Your task to perform on an android device: stop showing notifications on the lock screen Image 0: 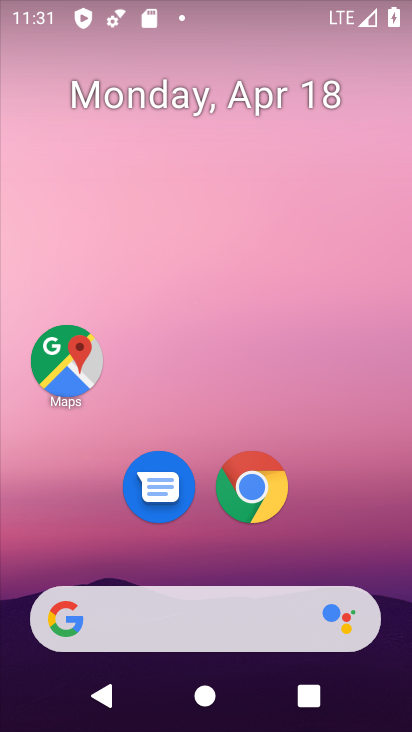
Step 0: drag from (201, 559) to (202, 12)
Your task to perform on an android device: stop showing notifications on the lock screen Image 1: 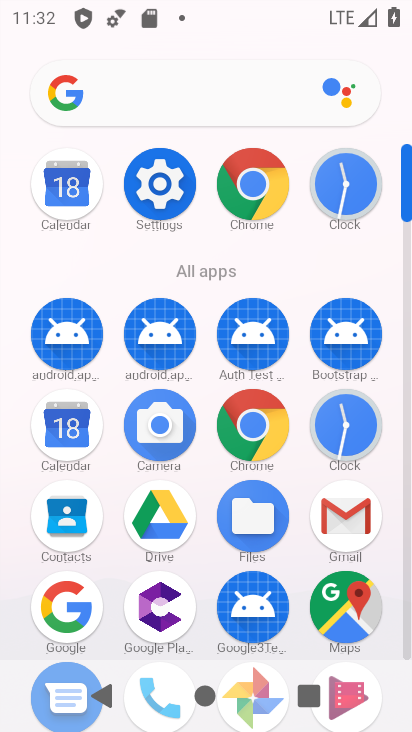
Step 1: click (160, 185)
Your task to perform on an android device: stop showing notifications on the lock screen Image 2: 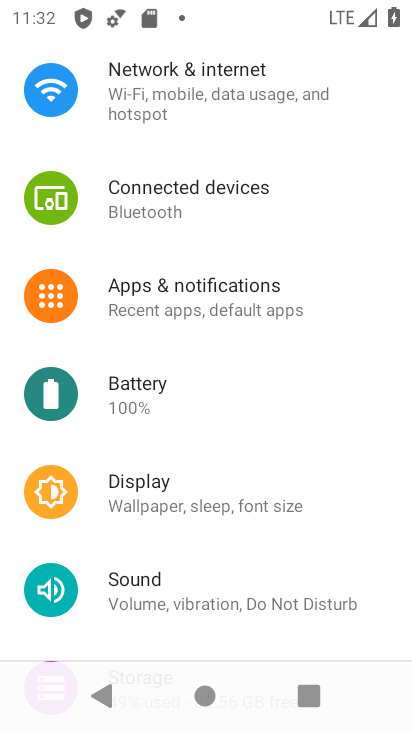
Step 2: click (177, 291)
Your task to perform on an android device: stop showing notifications on the lock screen Image 3: 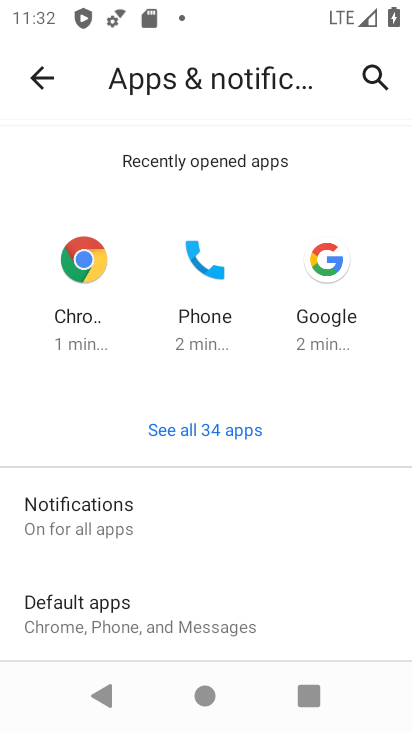
Step 3: drag from (171, 580) to (129, 221)
Your task to perform on an android device: stop showing notifications on the lock screen Image 4: 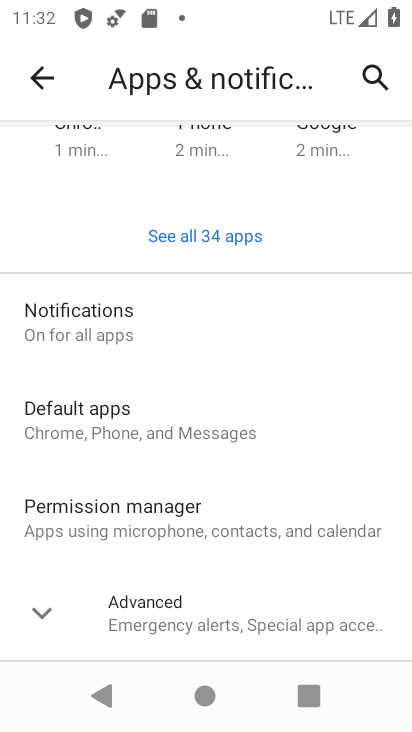
Step 4: click (63, 308)
Your task to perform on an android device: stop showing notifications on the lock screen Image 5: 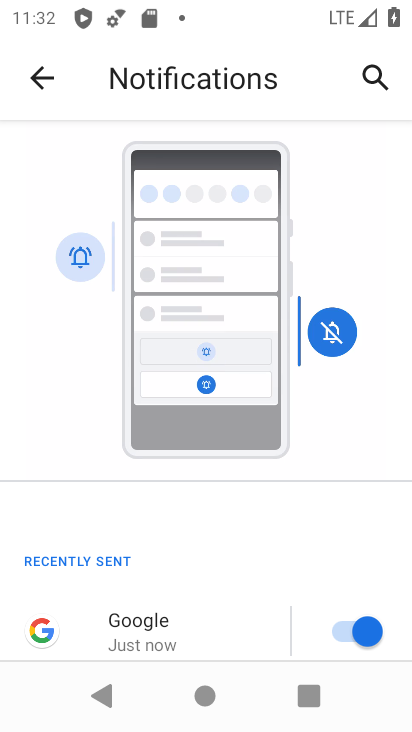
Step 5: drag from (175, 588) to (128, 220)
Your task to perform on an android device: stop showing notifications on the lock screen Image 6: 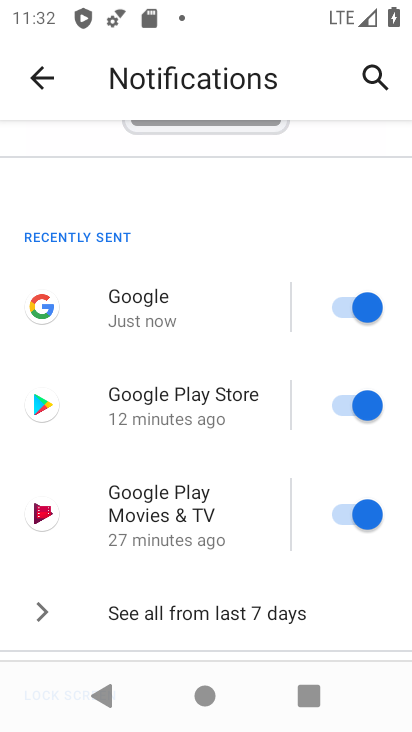
Step 6: drag from (200, 580) to (134, 159)
Your task to perform on an android device: stop showing notifications on the lock screen Image 7: 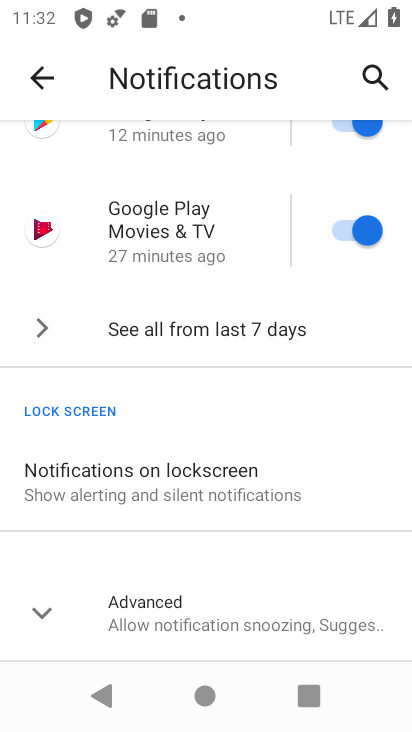
Step 7: click (164, 472)
Your task to perform on an android device: stop showing notifications on the lock screen Image 8: 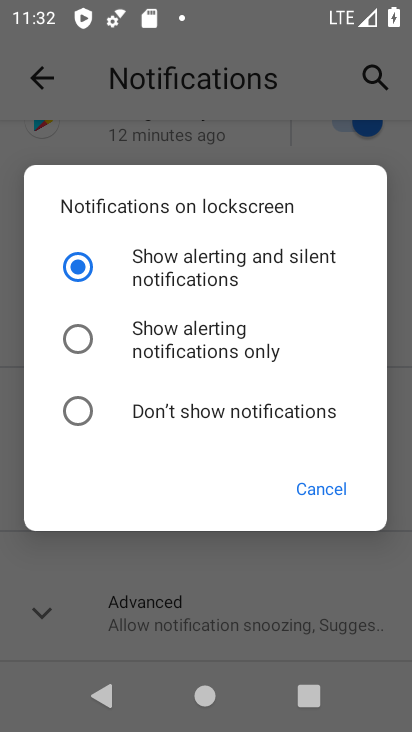
Step 8: click (78, 415)
Your task to perform on an android device: stop showing notifications on the lock screen Image 9: 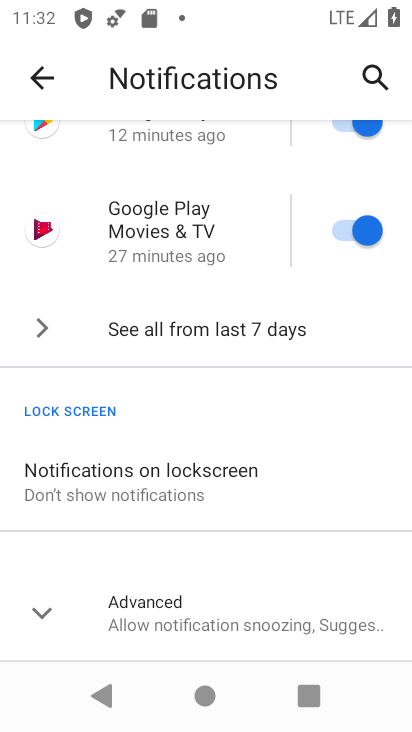
Step 9: task complete